Your task to perform on an android device: turn off data saver in the chrome app Image 0: 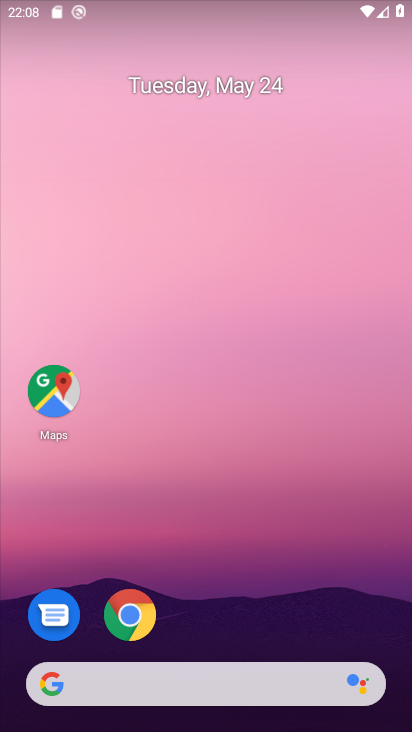
Step 0: drag from (254, 624) to (229, 246)
Your task to perform on an android device: turn off data saver in the chrome app Image 1: 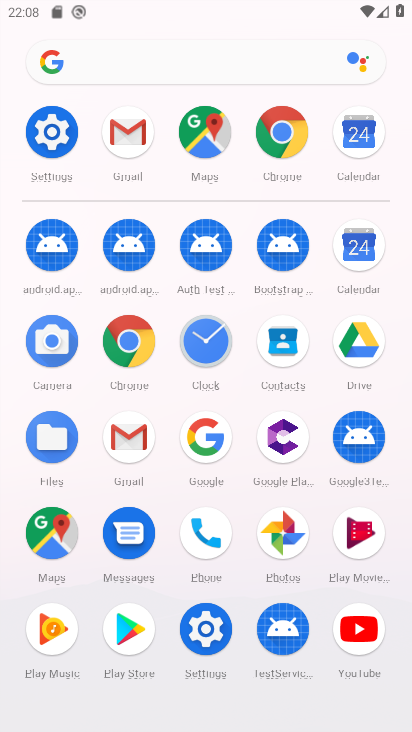
Step 1: click (273, 117)
Your task to perform on an android device: turn off data saver in the chrome app Image 2: 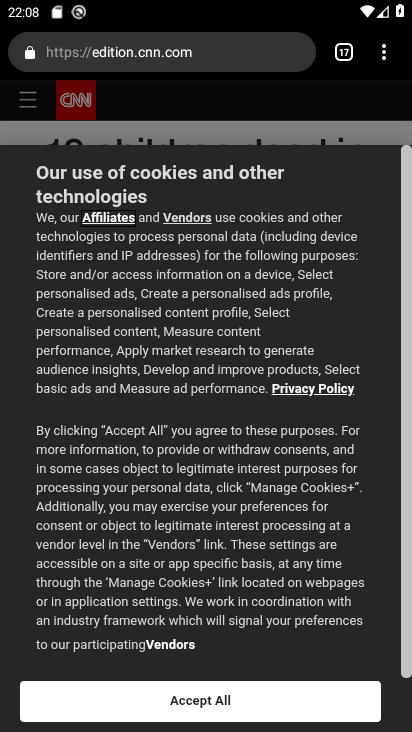
Step 2: click (382, 52)
Your task to perform on an android device: turn off data saver in the chrome app Image 3: 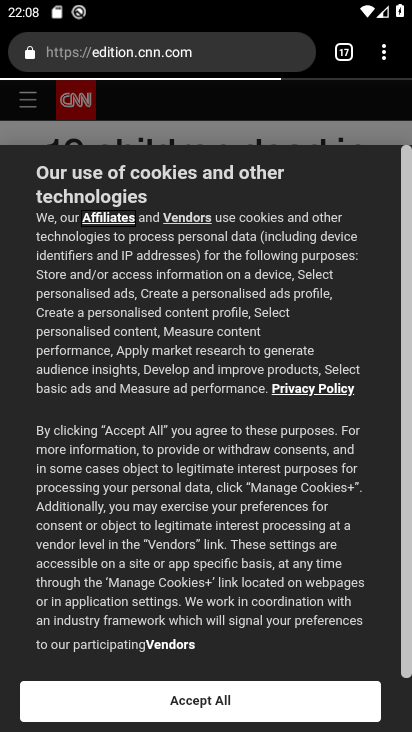
Step 3: click (382, 55)
Your task to perform on an android device: turn off data saver in the chrome app Image 4: 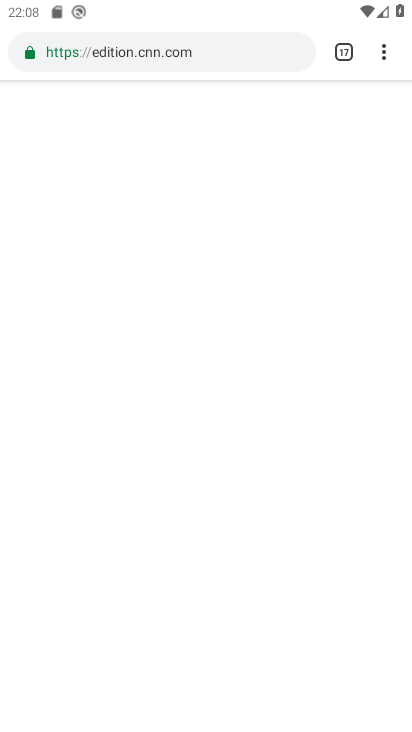
Step 4: click (382, 55)
Your task to perform on an android device: turn off data saver in the chrome app Image 5: 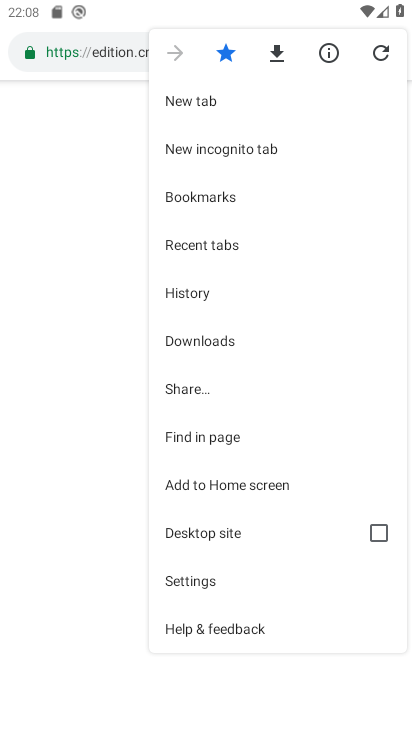
Step 5: click (220, 592)
Your task to perform on an android device: turn off data saver in the chrome app Image 6: 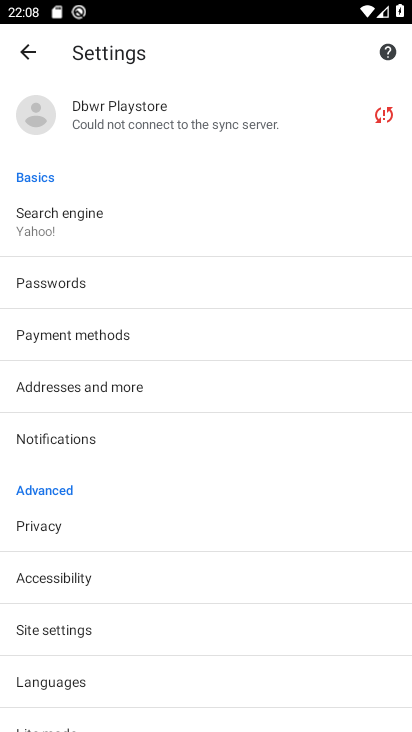
Step 6: drag from (182, 625) to (216, 461)
Your task to perform on an android device: turn off data saver in the chrome app Image 7: 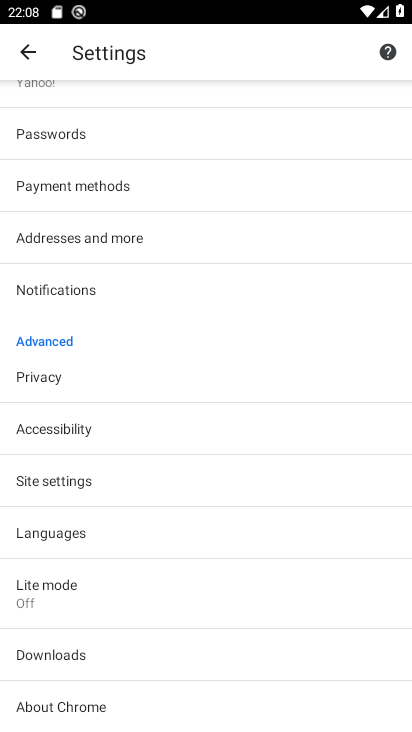
Step 7: click (76, 598)
Your task to perform on an android device: turn off data saver in the chrome app Image 8: 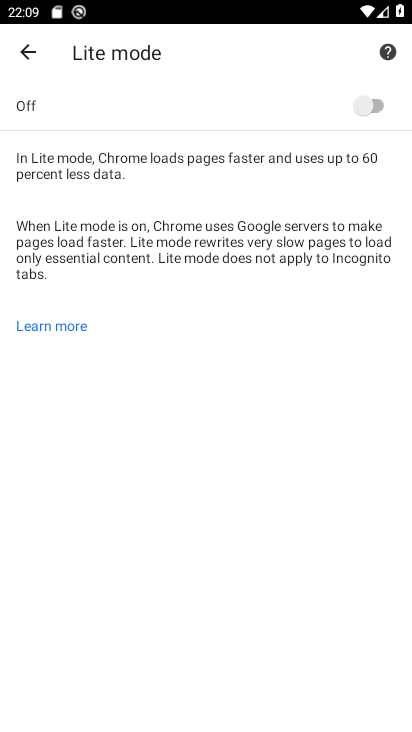
Step 8: task complete